Your task to perform on an android device: Open Yahoo.com Image 0: 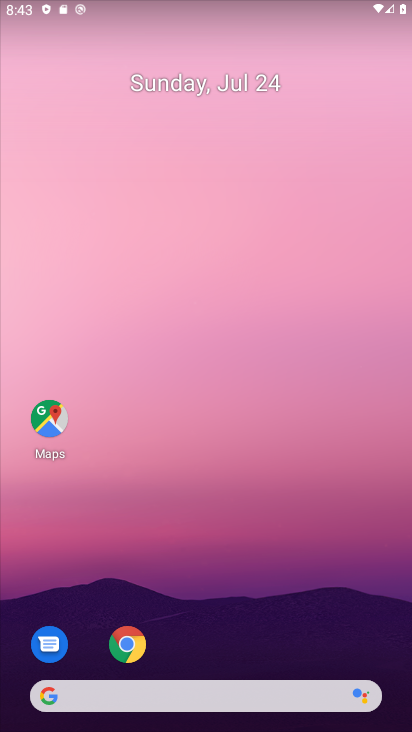
Step 0: drag from (285, 688) to (304, 193)
Your task to perform on an android device: Open Yahoo.com Image 1: 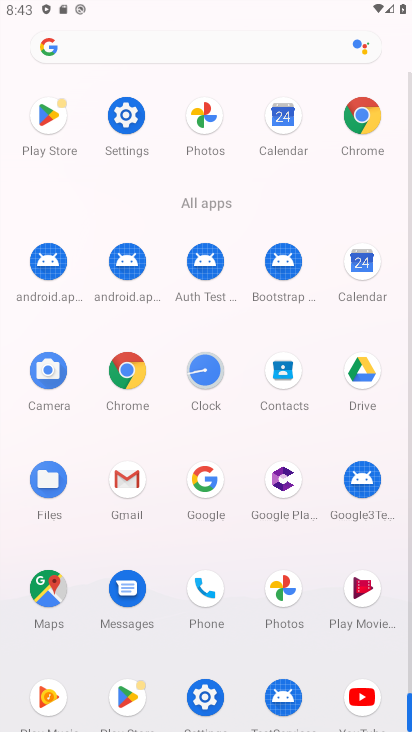
Step 1: click (367, 118)
Your task to perform on an android device: Open Yahoo.com Image 2: 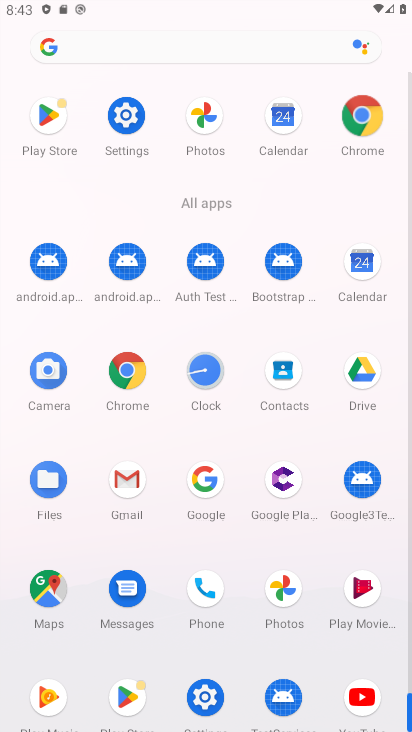
Step 2: click (363, 120)
Your task to perform on an android device: Open Yahoo.com Image 3: 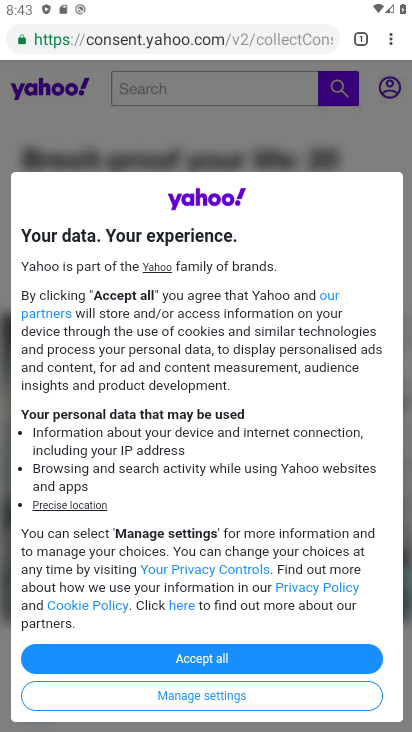
Step 3: task complete